Your task to perform on an android device: Open Reddit.com Image 0: 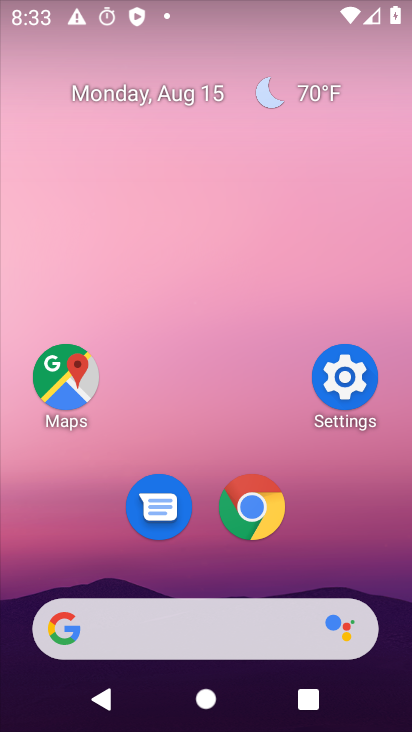
Step 0: click (257, 507)
Your task to perform on an android device: Open Reddit.com Image 1: 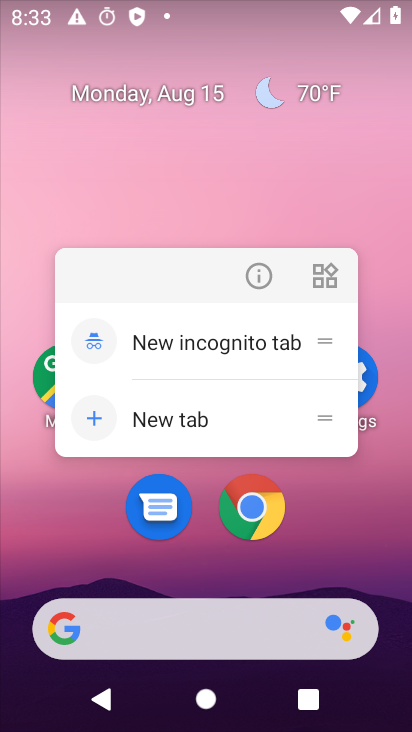
Step 1: click (247, 513)
Your task to perform on an android device: Open Reddit.com Image 2: 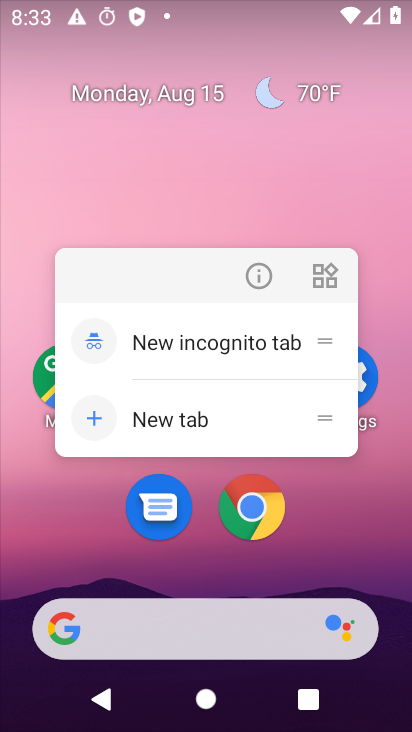
Step 2: click (262, 515)
Your task to perform on an android device: Open Reddit.com Image 3: 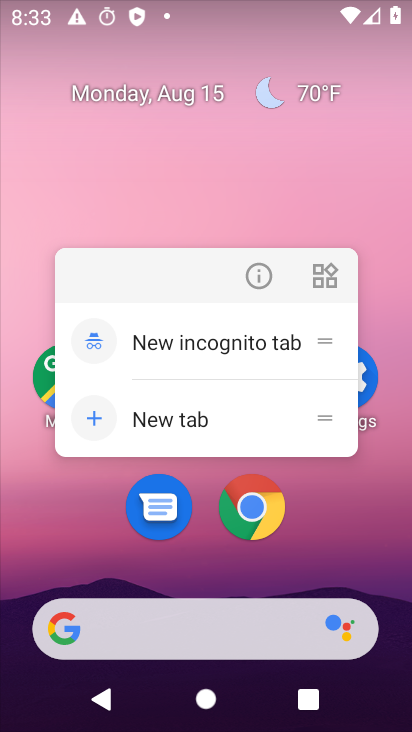
Step 3: click (254, 515)
Your task to perform on an android device: Open Reddit.com Image 4: 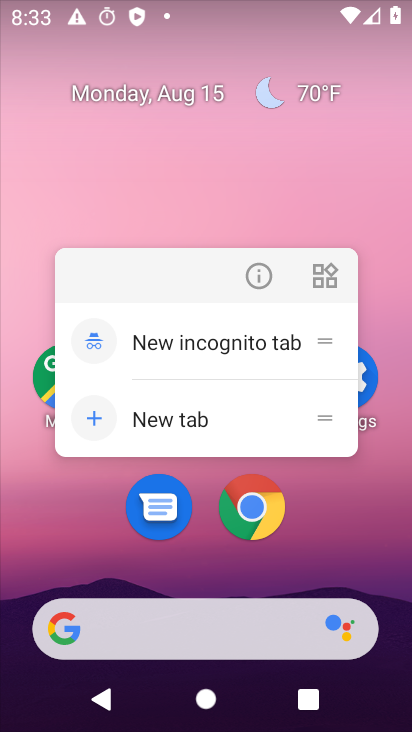
Step 4: click (255, 520)
Your task to perform on an android device: Open Reddit.com Image 5: 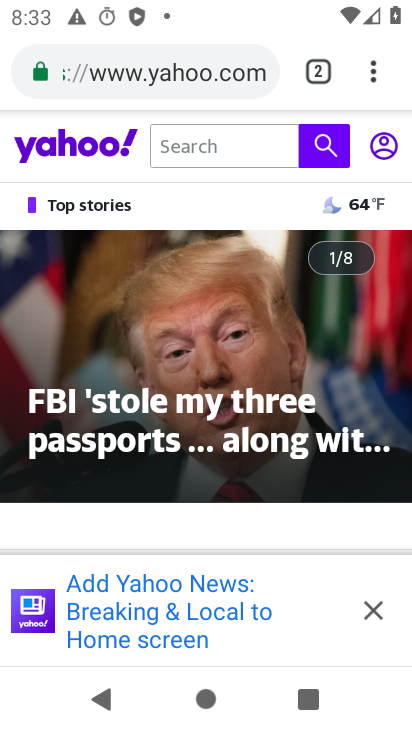
Step 5: drag from (373, 72) to (220, 143)
Your task to perform on an android device: Open Reddit.com Image 6: 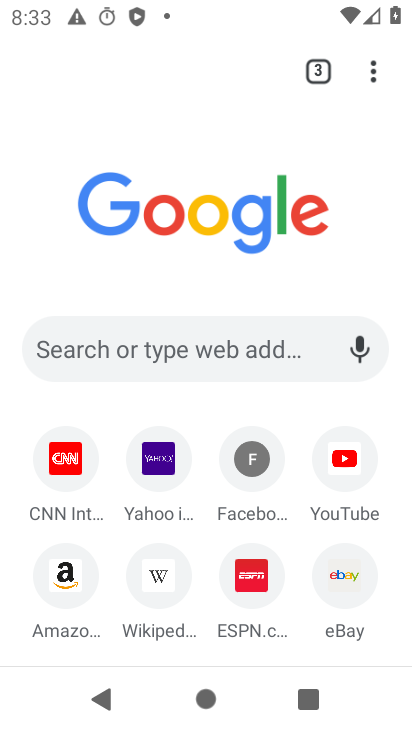
Step 6: click (89, 345)
Your task to perform on an android device: Open Reddit.com Image 7: 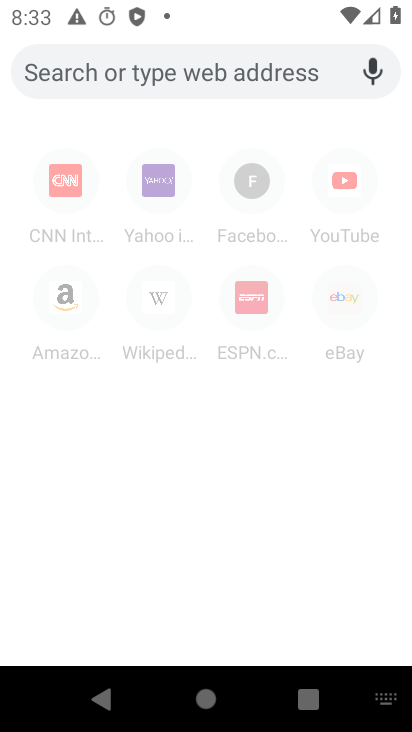
Step 7: type "Reddit.com"
Your task to perform on an android device: Open Reddit.com Image 8: 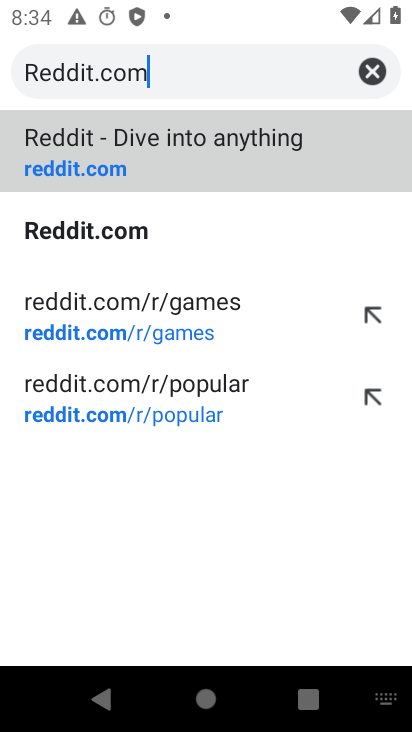
Step 8: click (125, 136)
Your task to perform on an android device: Open Reddit.com Image 9: 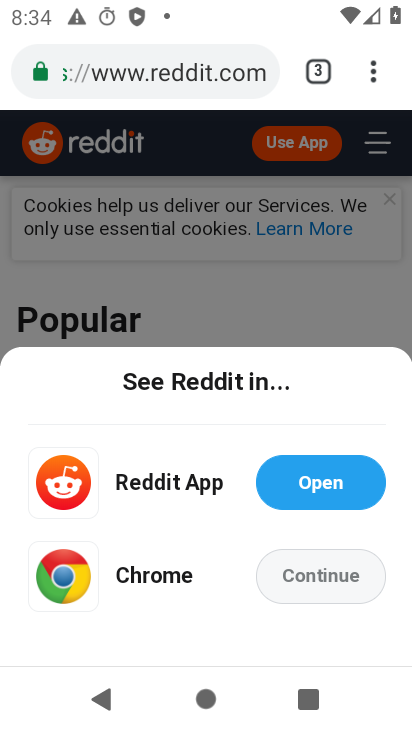
Step 9: task complete